Your task to perform on an android device: Search for pizza restaurants on Maps Image 0: 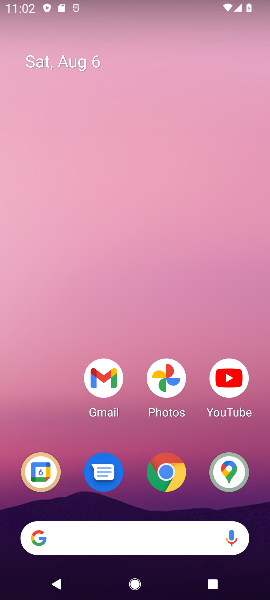
Step 0: click (10, 27)
Your task to perform on an android device: Search for pizza restaurants on Maps Image 1: 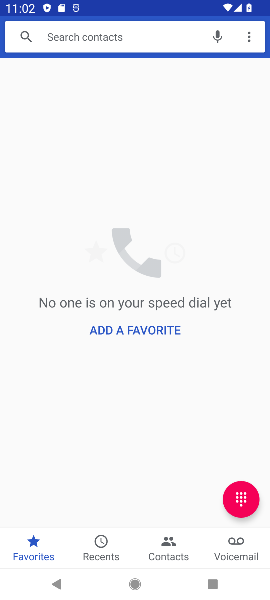
Step 1: press back button
Your task to perform on an android device: Search for pizza restaurants on Maps Image 2: 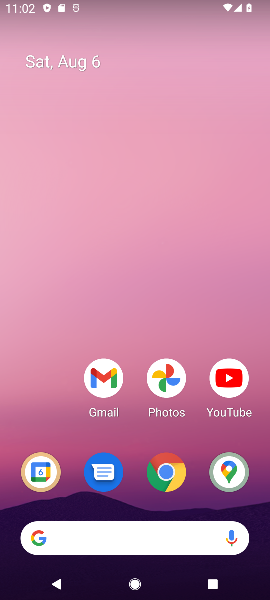
Step 2: drag from (174, 483) to (176, 82)
Your task to perform on an android device: Search for pizza restaurants on Maps Image 3: 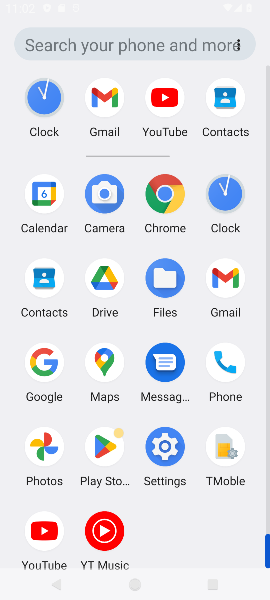
Step 3: drag from (176, 459) to (142, 264)
Your task to perform on an android device: Search for pizza restaurants on Maps Image 4: 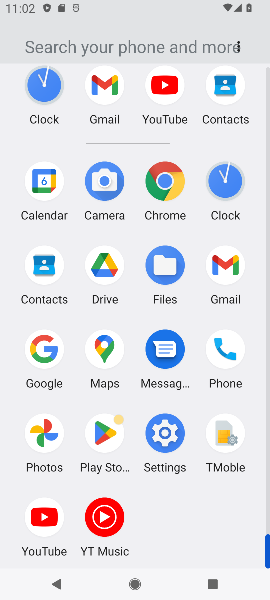
Step 4: click (105, 342)
Your task to perform on an android device: Search for pizza restaurants on Maps Image 5: 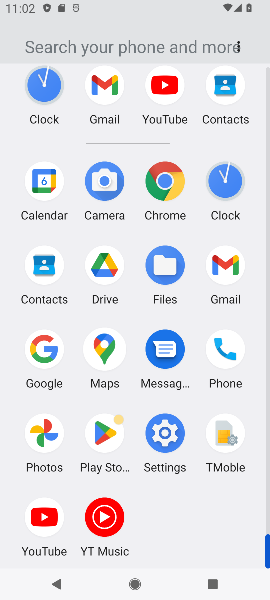
Step 5: click (102, 340)
Your task to perform on an android device: Search for pizza restaurants on Maps Image 6: 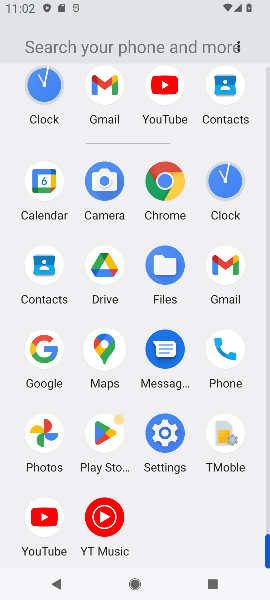
Step 6: click (114, 344)
Your task to perform on an android device: Search for pizza restaurants on Maps Image 7: 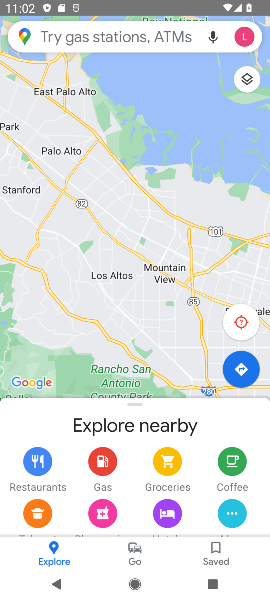
Step 7: click (109, 347)
Your task to perform on an android device: Search for pizza restaurants on Maps Image 8: 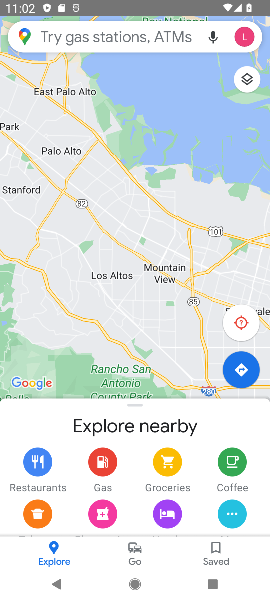
Step 8: click (69, 47)
Your task to perform on an android device: Search for pizza restaurants on Maps Image 9: 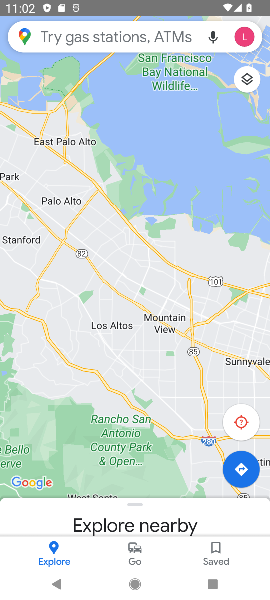
Step 9: click (68, 36)
Your task to perform on an android device: Search for pizza restaurants on Maps Image 10: 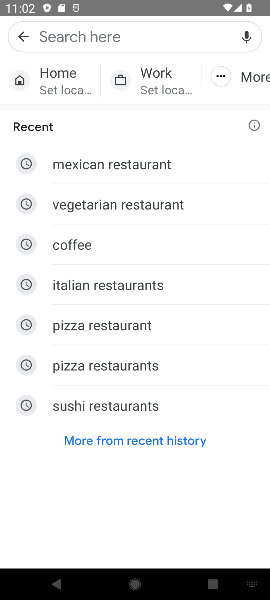
Step 10: click (116, 362)
Your task to perform on an android device: Search for pizza restaurants on Maps Image 11: 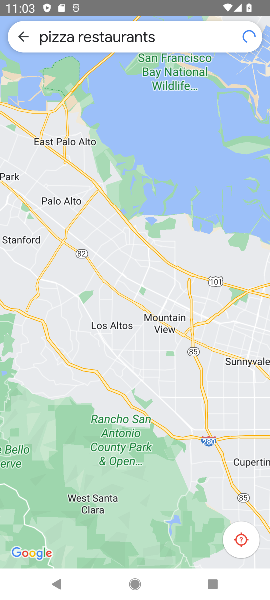
Step 11: click (119, 385)
Your task to perform on an android device: Search for pizza restaurants on Maps Image 12: 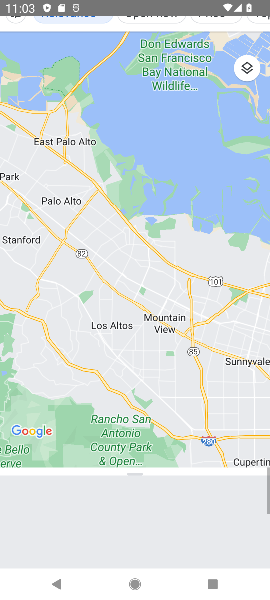
Step 12: task complete